Your task to perform on an android device: change the clock display to digital Image 0: 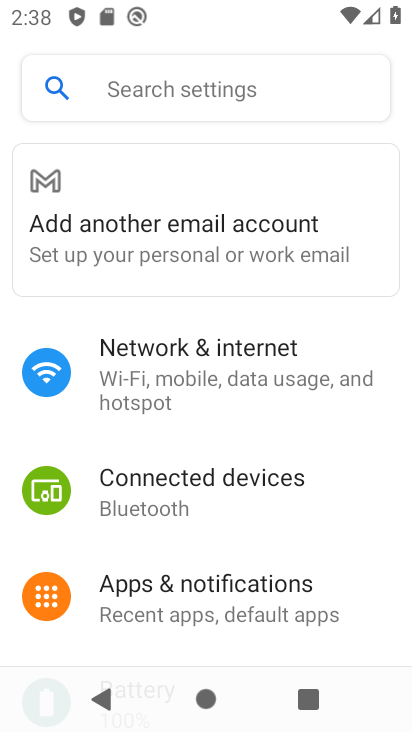
Step 0: press home button
Your task to perform on an android device: change the clock display to digital Image 1: 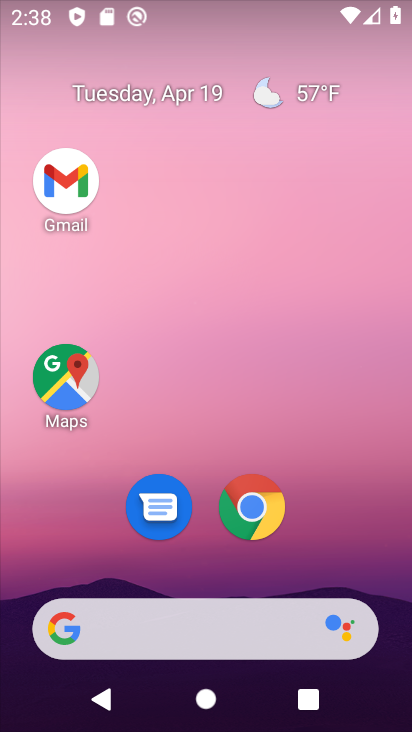
Step 1: drag from (292, 546) to (372, 179)
Your task to perform on an android device: change the clock display to digital Image 2: 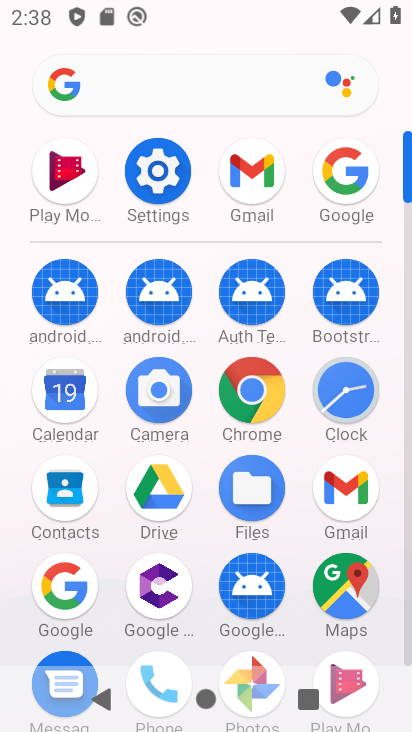
Step 2: click (363, 402)
Your task to perform on an android device: change the clock display to digital Image 3: 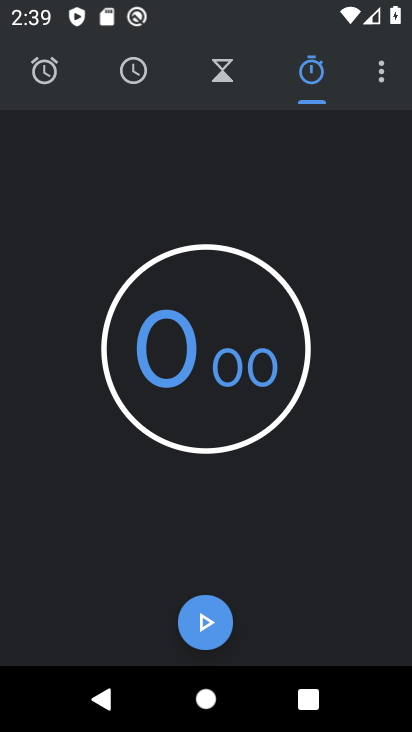
Step 3: click (382, 65)
Your task to perform on an android device: change the clock display to digital Image 4: 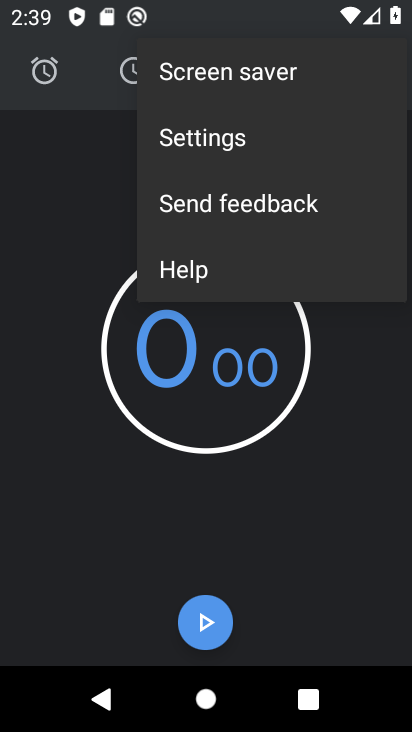
Step 4: click (245, 150)
Your task to perform on an android device: change the clock display to digital Image 5: 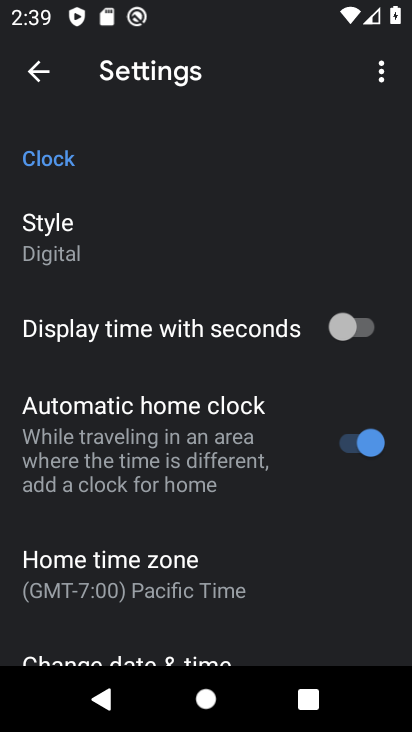
Step 5: task complete